Your task to perform on an android device: Go to notification settings Image 0: 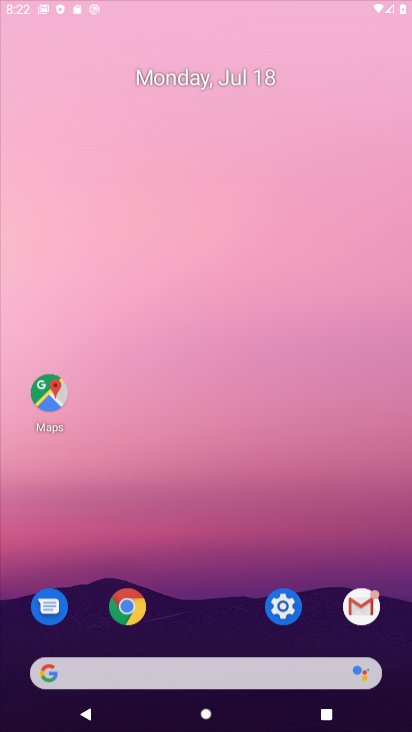
Step 0: press home button
Your task to perform on an android device: Go to notification settings Image 1: 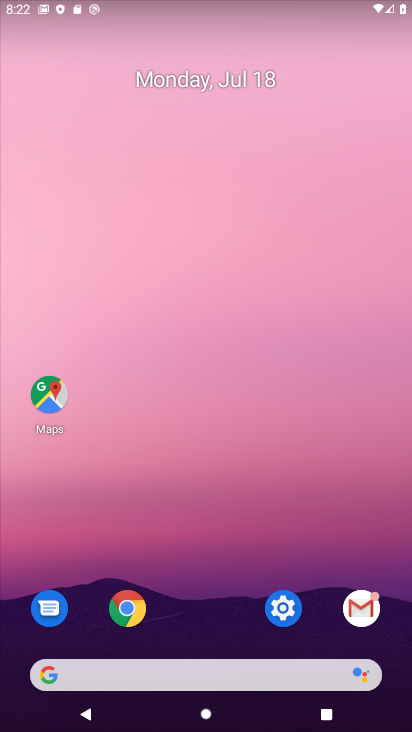
Step 1: drag from (275, 699) to (177, 253)
Your task to perform on an android device: Go to notification settings Image 2: 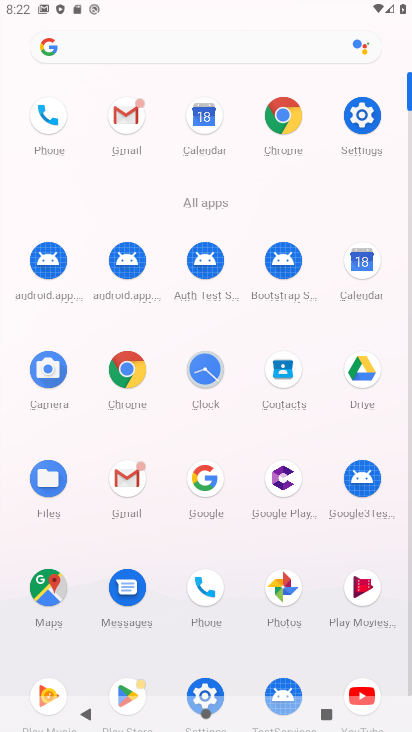
Step 2: click (353, 130)
Your task to perform on an android device: Go to notification settings Image 3: 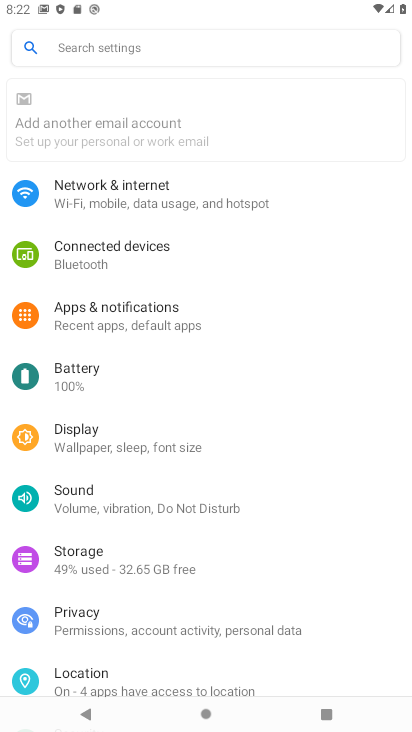
Step 3: click (132, 46)
Your task to perform on an android device: Go to notification settings Image 4: 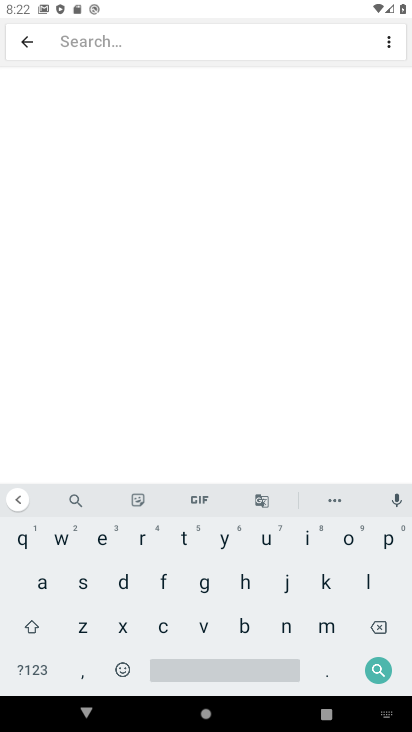
Step 4: click (286, 626)
Your task to perform on an android device: Go to notification settings Image 5: 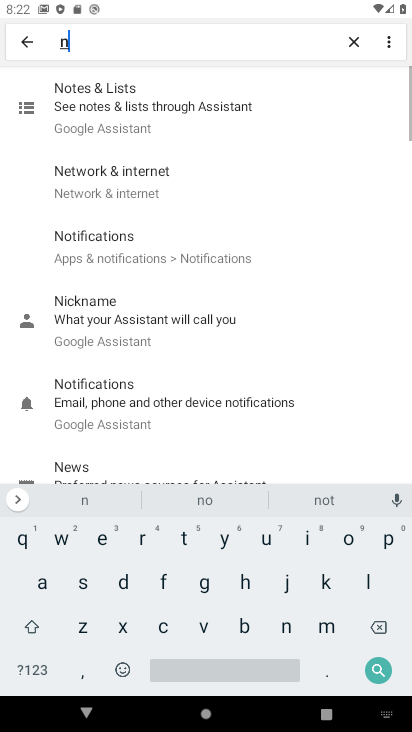
Step 5: click (351, 538)
Your task to perform on an android device: Go to notification settings Image 6: 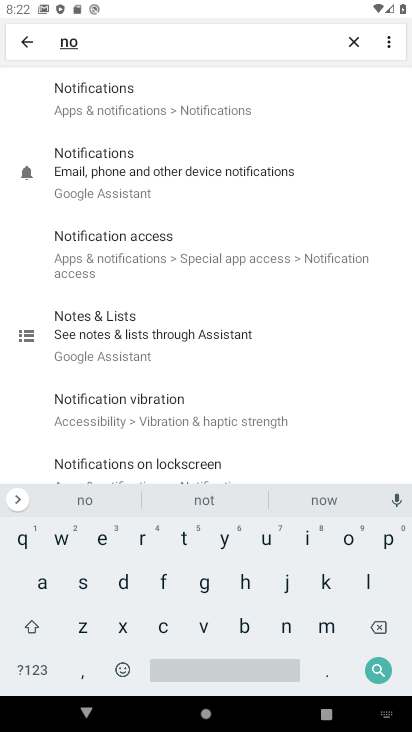
Step 6: click (129, 98)
Your task to perform on an android device: Go to notification settings Image 7: 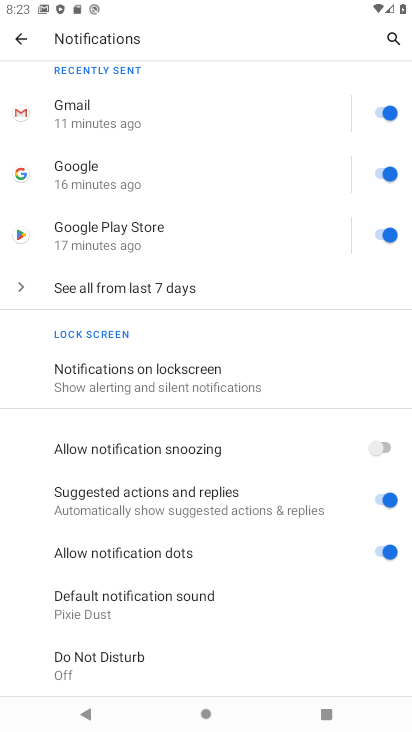
Step 7: task complete